Your task to perform on an android device: turn on the 12-hour format for clock Image 0: 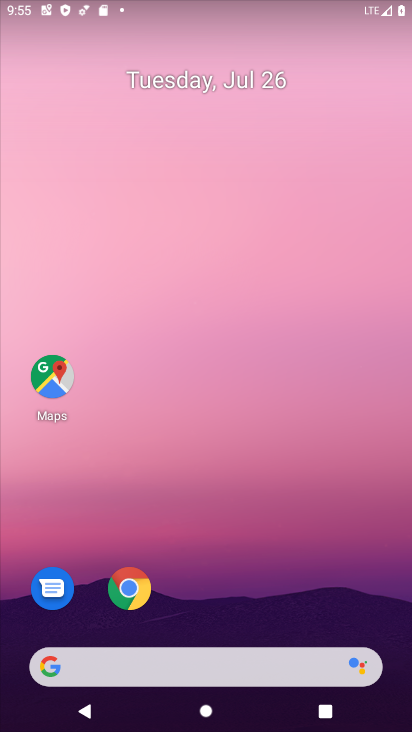
Step 0: drag from (224, 659) to (256, 73)
Your task to perform on an android device: turn on the 12-hour format for clock Image 1: 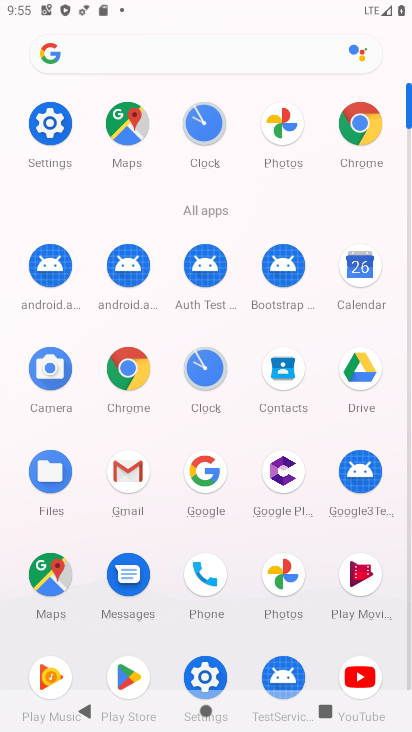
Step 1: click (203, 122)
Your task to perform on an android device: turn on the 12-hour format for clock Image 2: 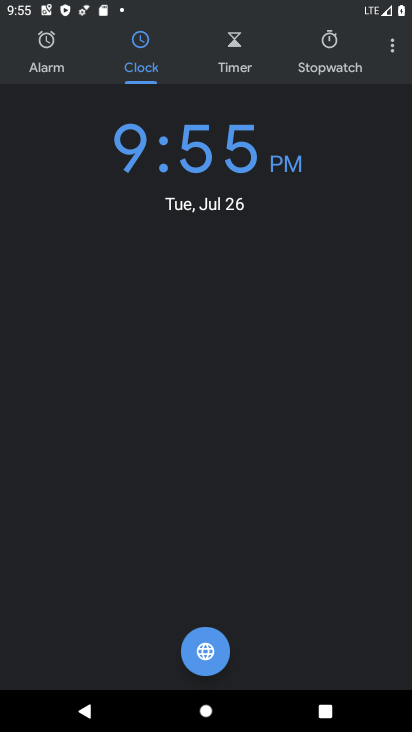
Step 2: click (393, 46)
Your task to perform on an android device: turn on the 12-hour format for clock Image 3: 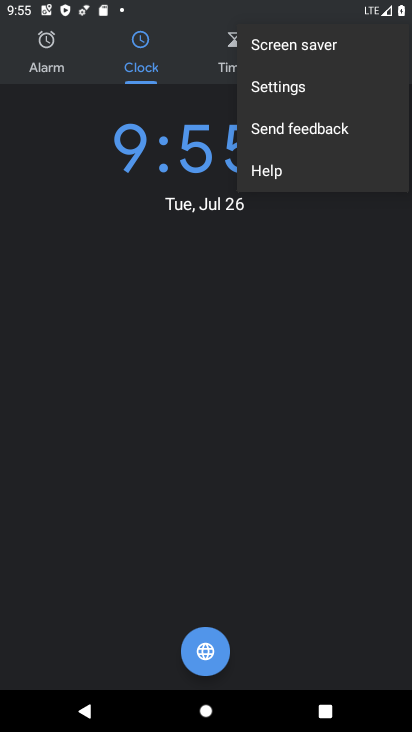
Step 3: click (292, 87)
Your task to perform on an android device: turn on the 12-hour format for clock Image 4: 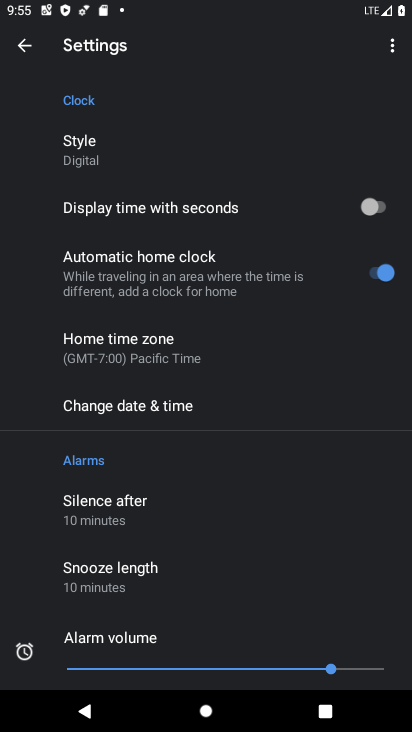
Step 4: click (130, 409)
Your task to perform on an android device: turn on the 12-hour format for clock Image 5: 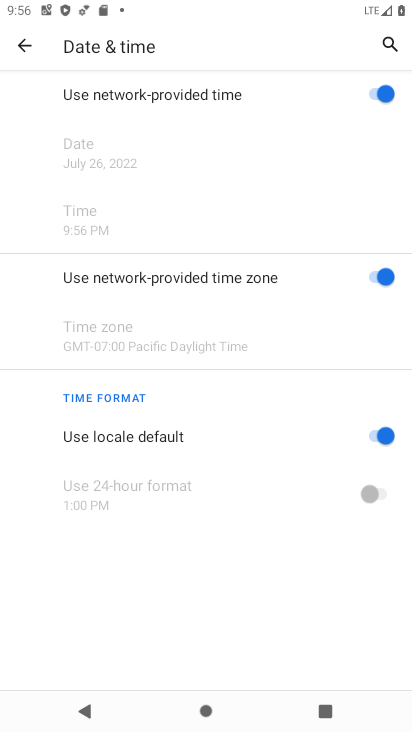
Step 5: task complete